Your task to perform on an android device: Go to CNN.com Image 0: 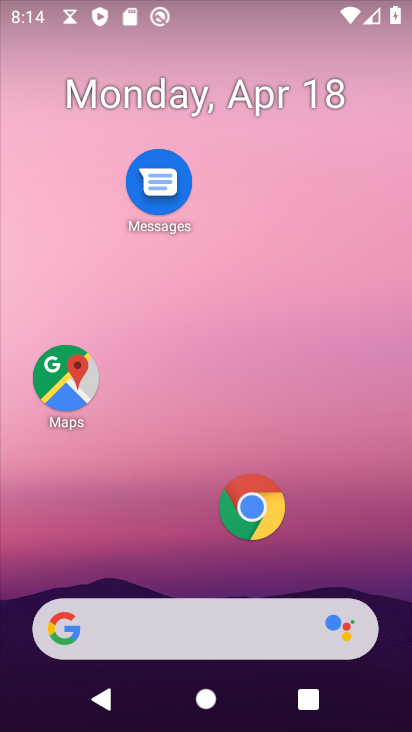
Step 0: click (245, 509)
Your task to perform on an android device: Go to CNN.com Image 1: 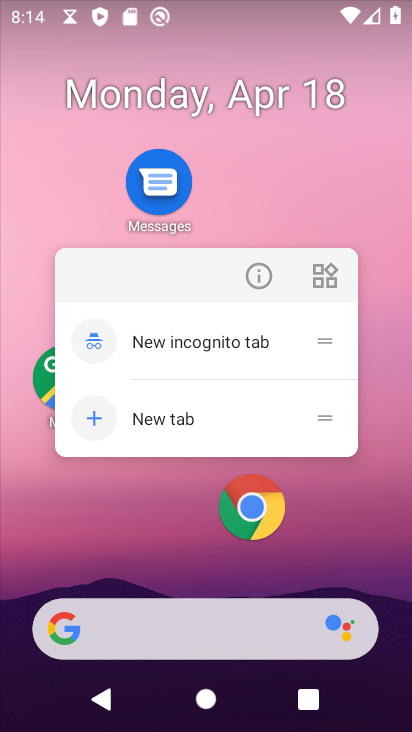
Step 1: click (244, 510)
Your task to perform on an android device: Go to CNN.com Image 2: 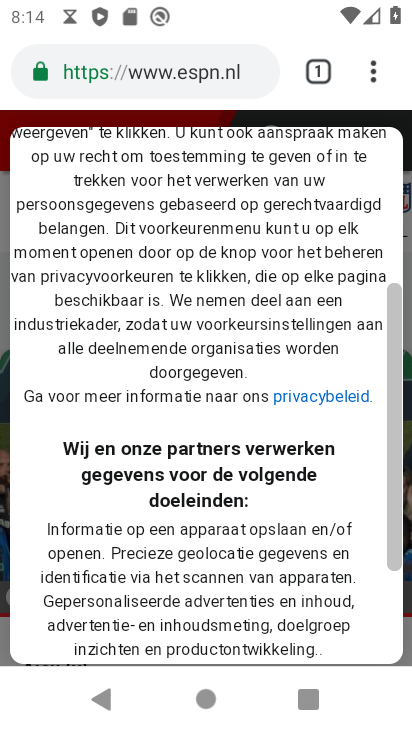
Step 2: click (315, 77)
Your task to perform on an android device: Go to CNN.com Image 3: 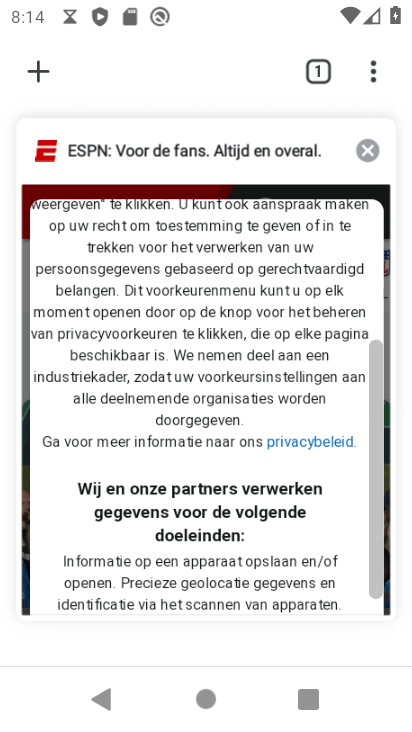
Step 3: click (365, 150)
Your task to perform on an android device: Go to CNN.com Image 4: 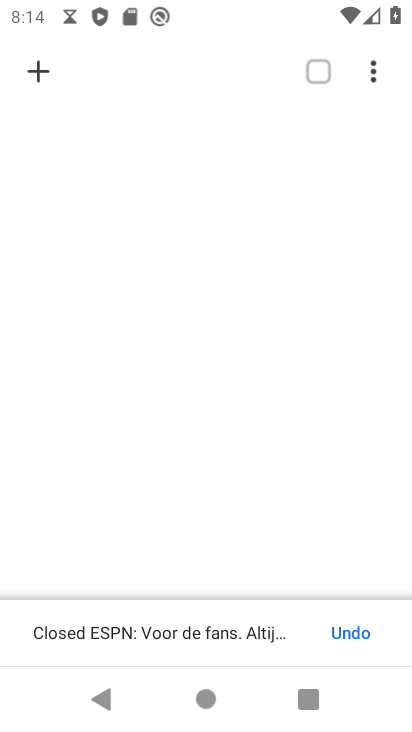
Step 4: click (39, 67)
Your task to perform on an android device: Go to CNN.com Image 5: 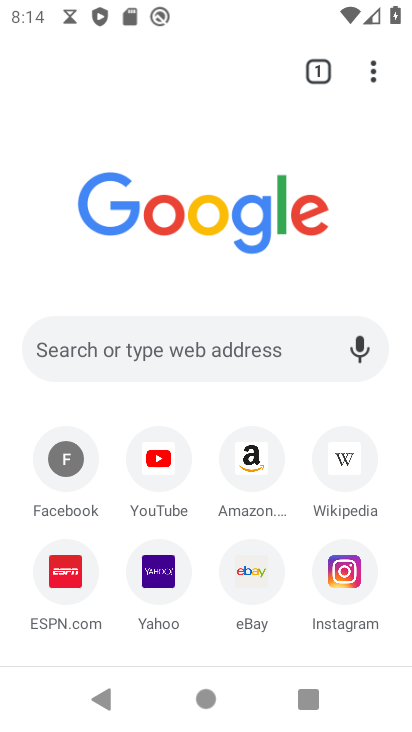
Step 5: click (154, 351)
Your task to perform on an android device: Go to CNN.com Image 6: 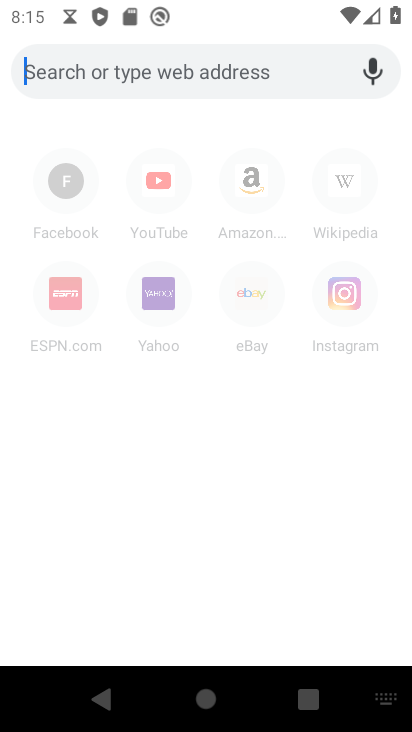
Step 6: type "CNN.com"
Your task to perform on an android device: Go to CNN.com Image 7: 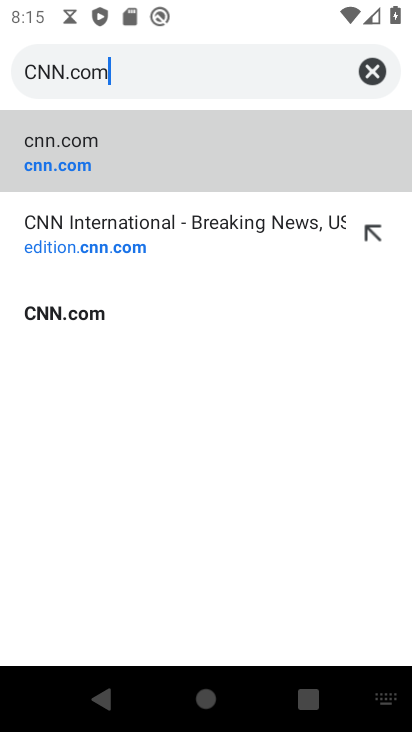
Step 7: click (37, 308)
Your task to perform on an android device: Go to CNN.com Image 8: 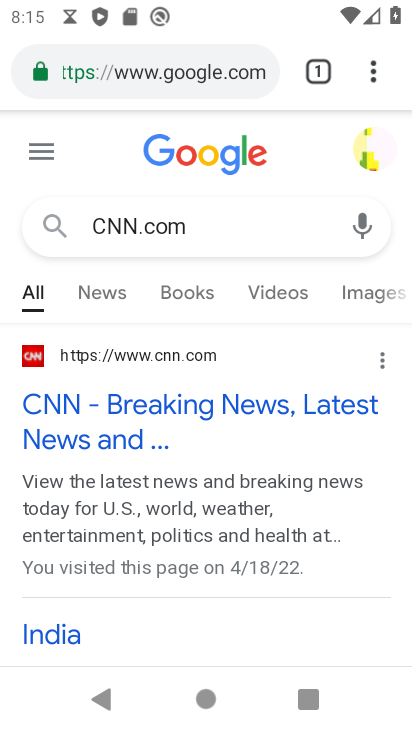
Step 8: click (135, 395)
Your task to perform on an android device: Go to CNN.com Image 9: 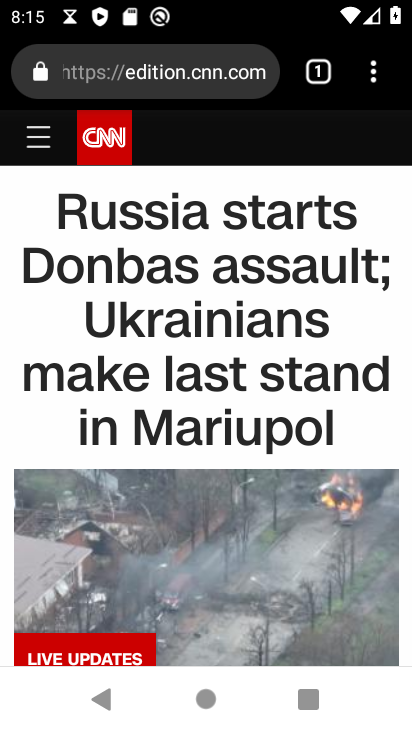
Step 9: task complete